Your task to perform on an android device: Go to Google maps Image 0: 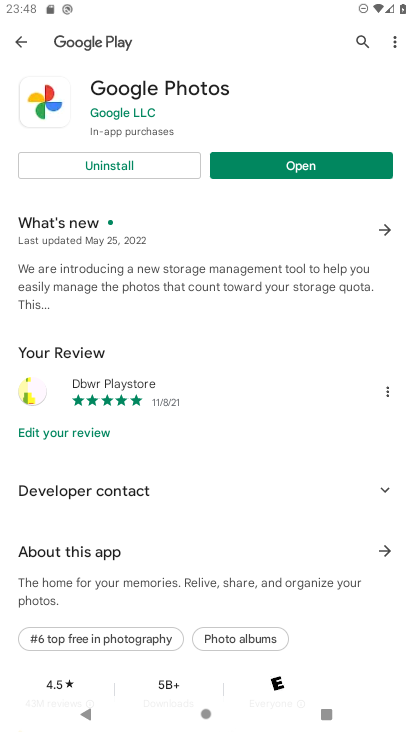
Step 0: press home button
Your task to perform on an android device: Go to Google maps Image 1: 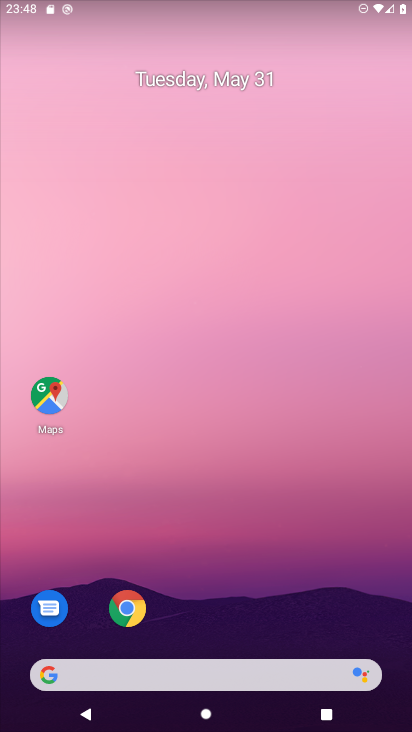
Step 1: click (51, 399)
Your task to perform on an android device: Go to Google maps Image 2: 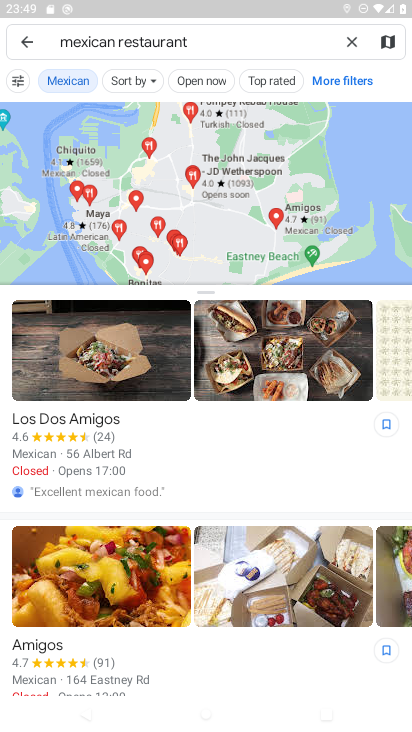
Step 2: task complete